Your task to perform on an android device: choose inbox layout in the gmail app Image 0: 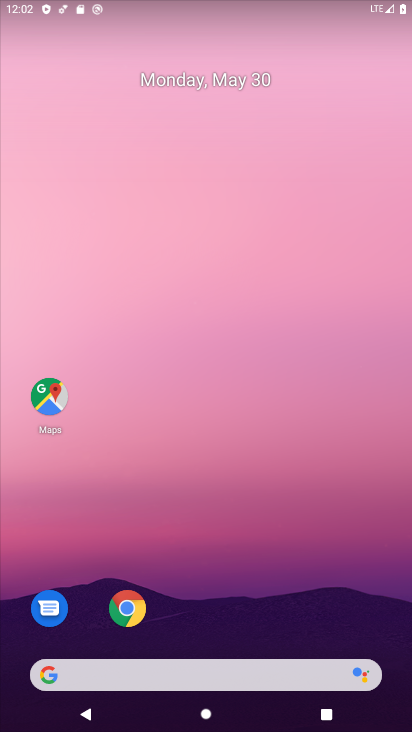
Step 0: drag from (204, 640) to (241, 64)
Your task to perform on an android device: choose inbox layout in the gmail app Image 1: 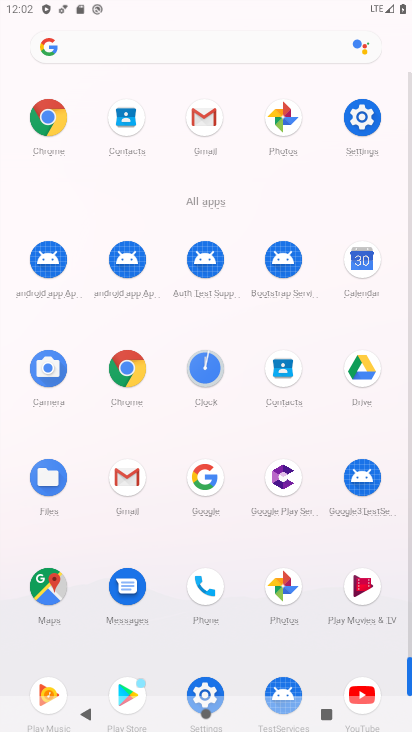
Step 1: click (114, 478)
Your task to perform on an android device: choose inbox layout in the gmail app Image 2: 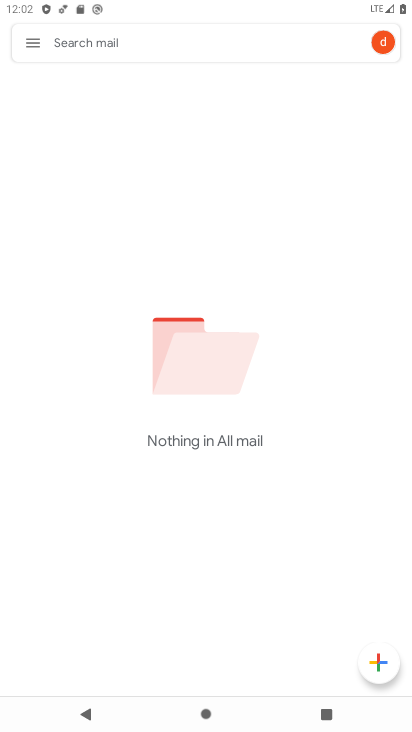
Step 2: click (27, 40)
Your task to perform on an android device: choose inbox layout in the gmail app Image 3: 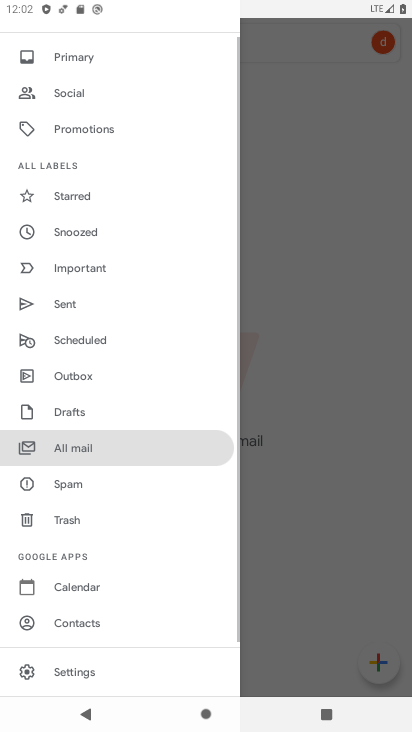
Step 3: drag from (92, 586) to (92, 150)
Your task to perform on an android device: choose inbox layout in the gmail app Image 4: 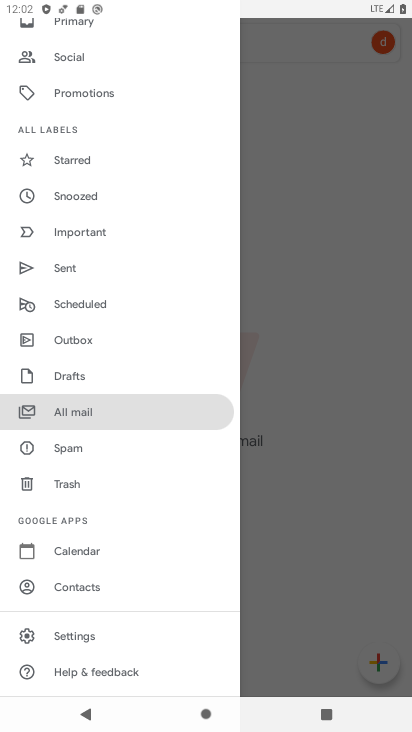
Step 4: click (95, 642)
Your task to perform on an android device: choose inbox layout in the gmail app Image 5: 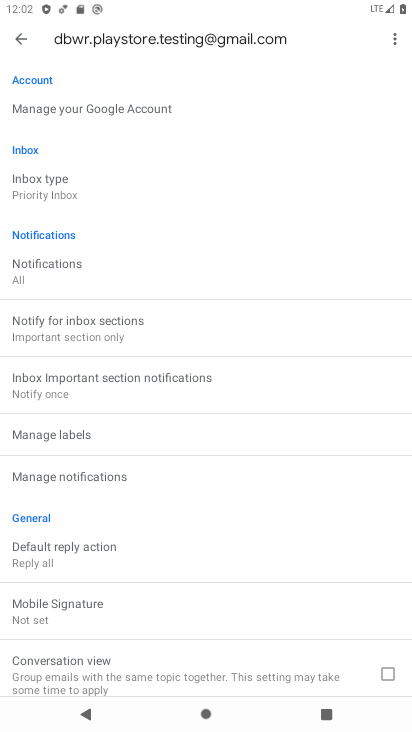
Step 5: click (46, 202)
Your task to perform on an android device: choose inbox layout in the gmail app Image 6: 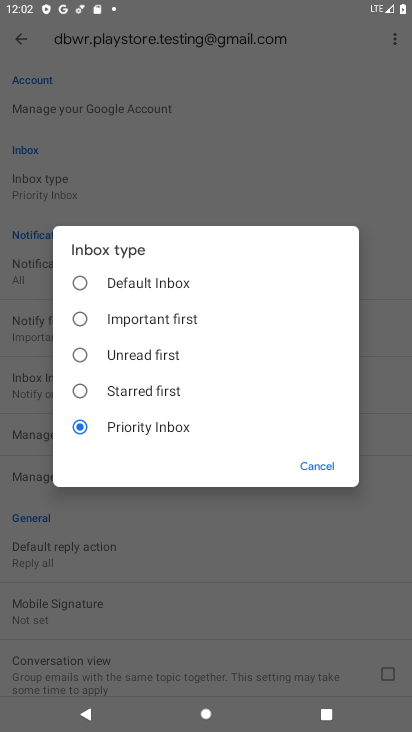
Step 6: click (140, 277)
Your task to perform on an android device: choose inbox layout in the gmail app Image 7: 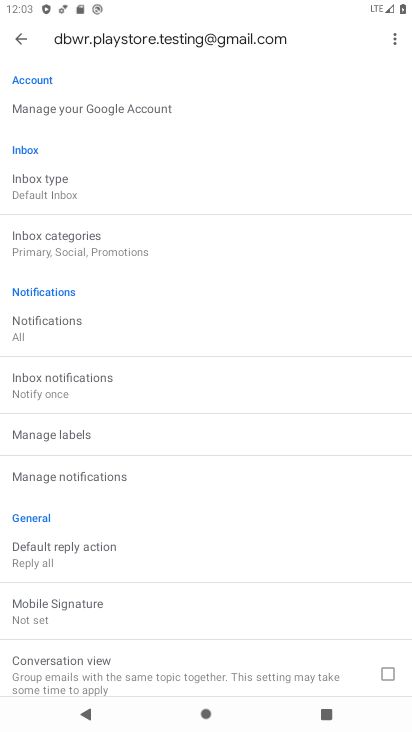
Step 7: task complete